Your task to perform on an android device: see sites visited before in the chrome app Image 0: 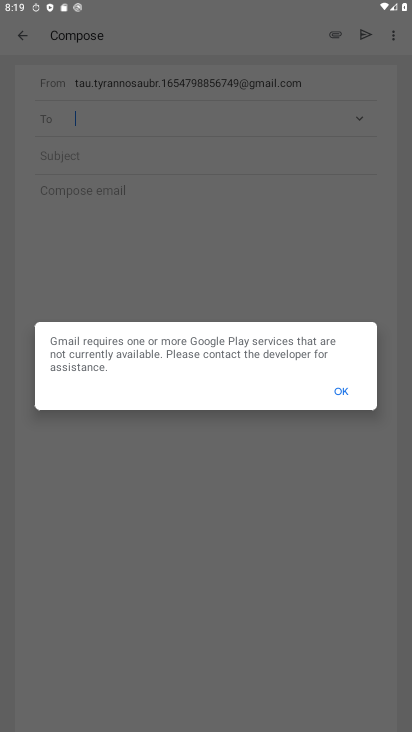
Step 0: click (327, 381)
Your task to perform on an android device: see sites visited before in the chrome app Image 1: 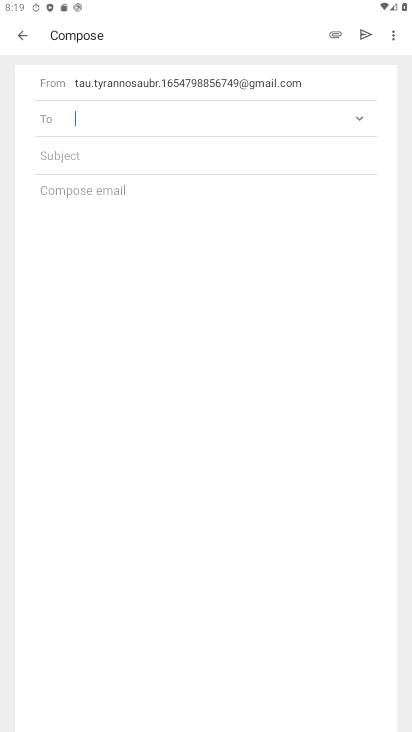
Step 1: click (25, 34)
Your task to perform on an android device: see sites visited before in the chrome app Image 2: 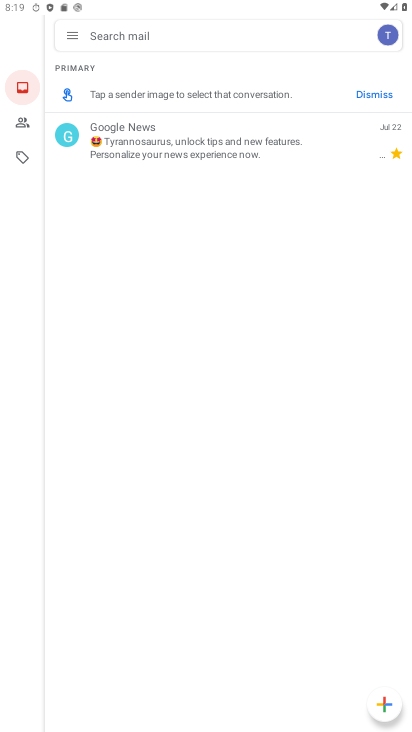
Step 2: press back button
Your task to perform on an android device: see sites visited before in the chrome app Image 3: 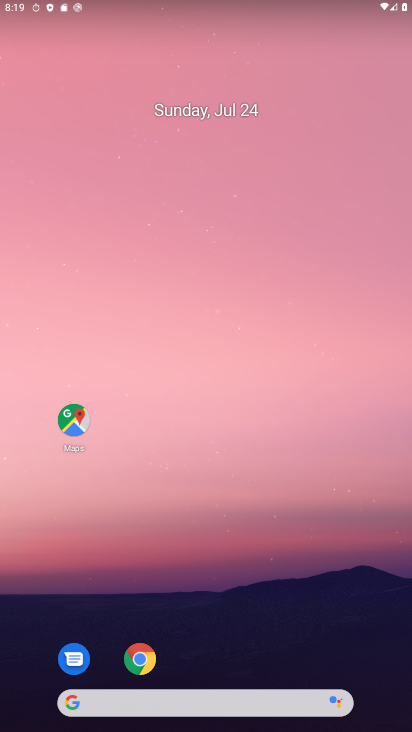
Step 3: drag from (260, 692) to (242, 151)
Your task to perform on an android device: see sites visited before in the chrome app Image 4: 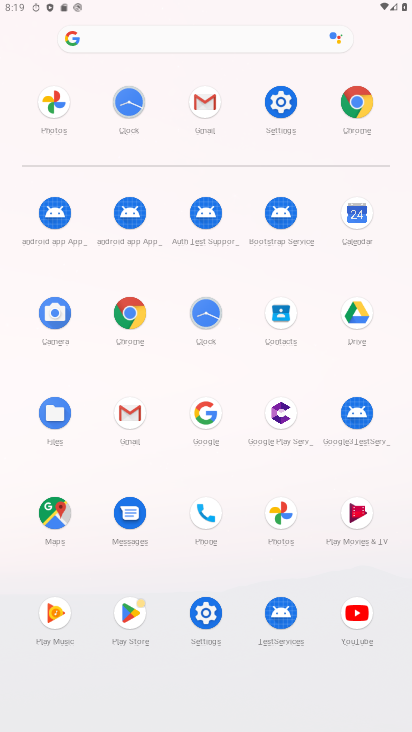
Step 4: click (133, 320)
Your task to perform on an android device: see sites visited before in the chrome app Image 5: 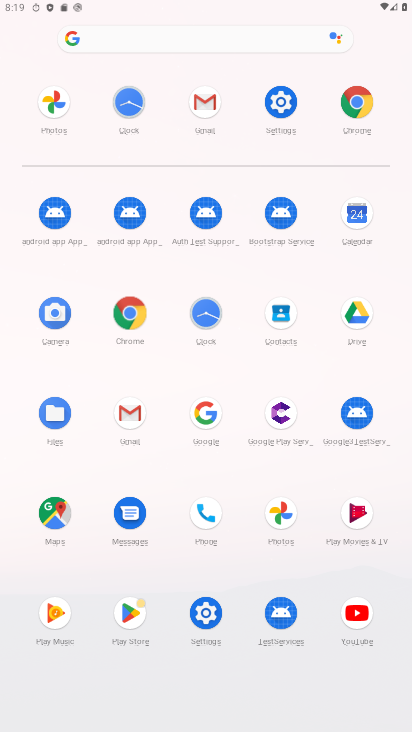
Step 5: click (131, 317)
Your task to perform on an android device: see sites visited before in the chrome app Image 6: 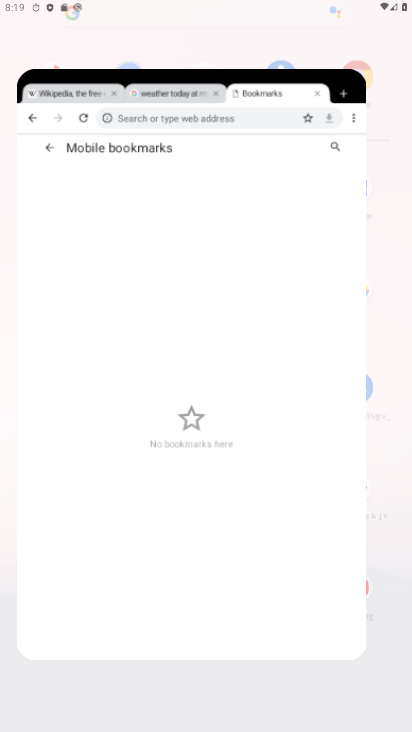
Step 6: click (143, 310)
Your task to perform on an android device: see sites visited before in the chrome app Image 7: 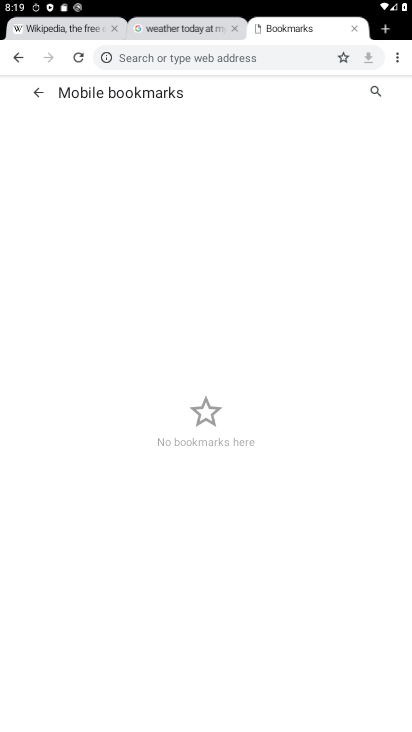
Step 7: drag from (397, 56) to (267, 152)
Your task to perform on an android device: see sites visited before in the chrome app Image 8: 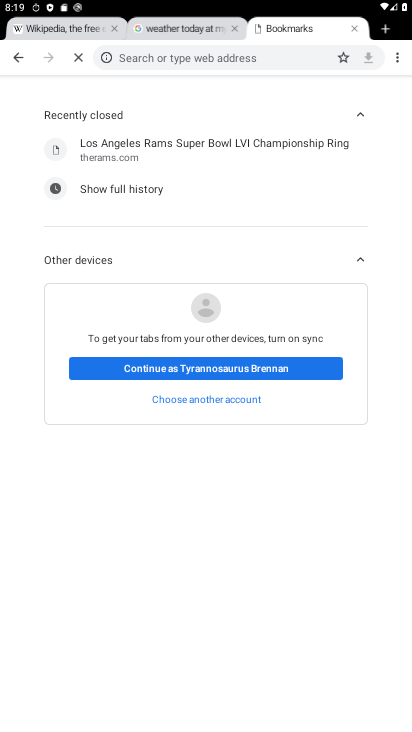
Step 8: click (267, 153)
Your task to perform on an android device: see sites visited before in the chrome app Image 9: 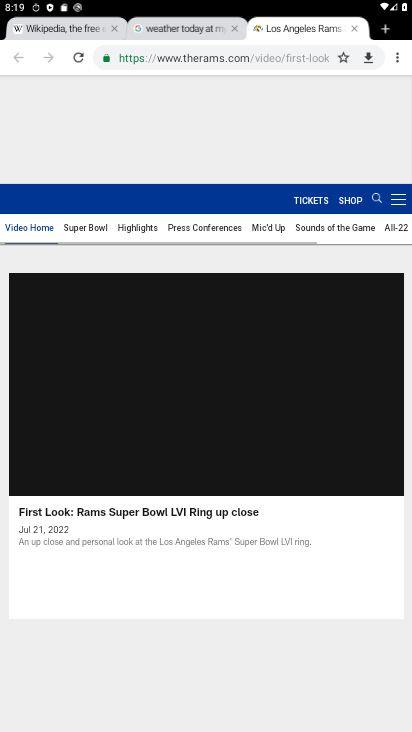
Step 9: task complete